Your task to perform on an android device: turn off javascript in the chrome app Image 0: 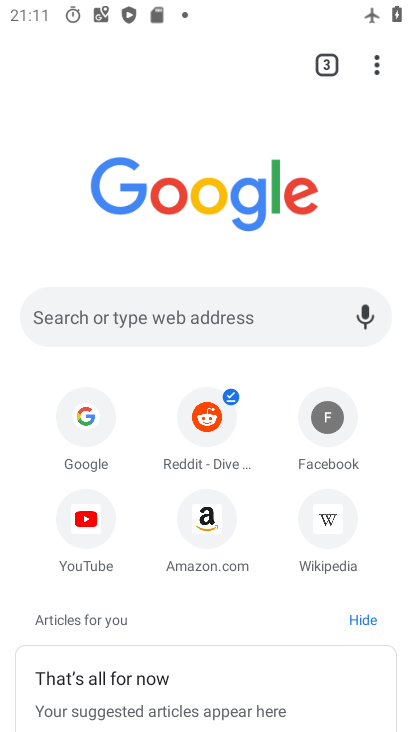
Step 0: drag from (373, 69) to (164, 542)
Your task to perform on an android device: turn off javascript in the chrome app Image 1: 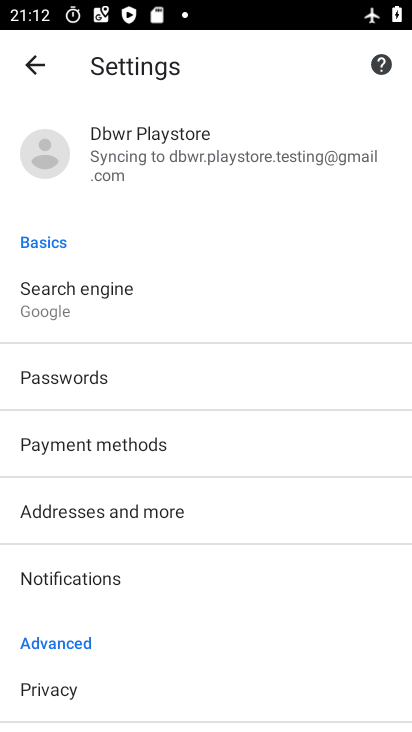
Step 1: drag from (244, 561) to (230, 207)
Your task to perform on an android device: turn off javascript in the chrome app Image 2: 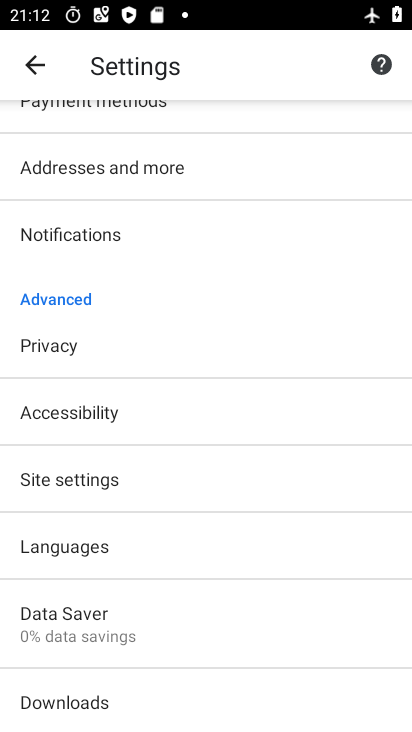
Step 2: click (80, 480)
Your task to perform on an android device: turn off javascript in the chrome app Image 3: 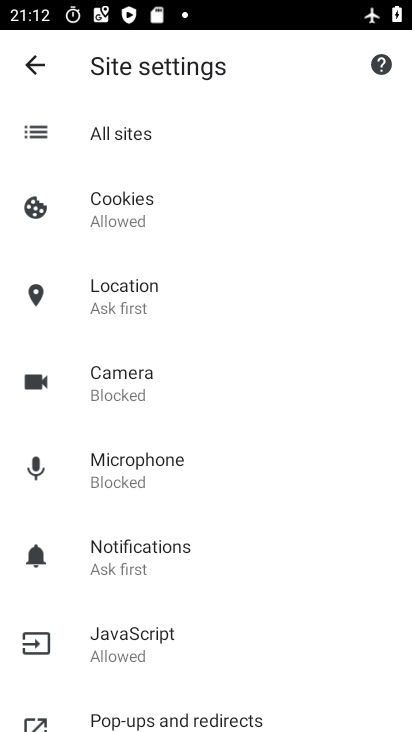
Step 3: click (159, 643)
Your task to perform on an android device: turn off javascript in the chrome app Image 4: 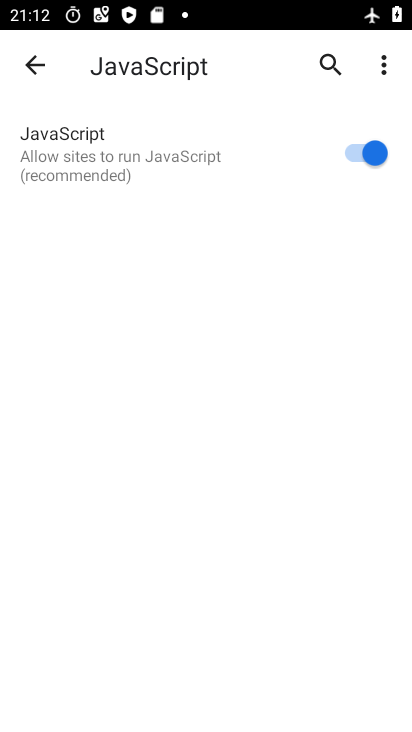
Step 4: click (354, 149)
Your task to perform on an android device: turn off javascript in the chrome app Image 5: 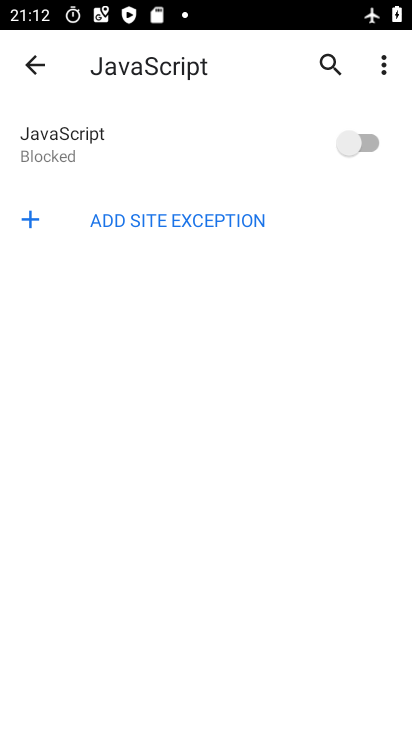
Step 5: task complete